Your task to perform on an android device: change alarm snooze length Image 0: 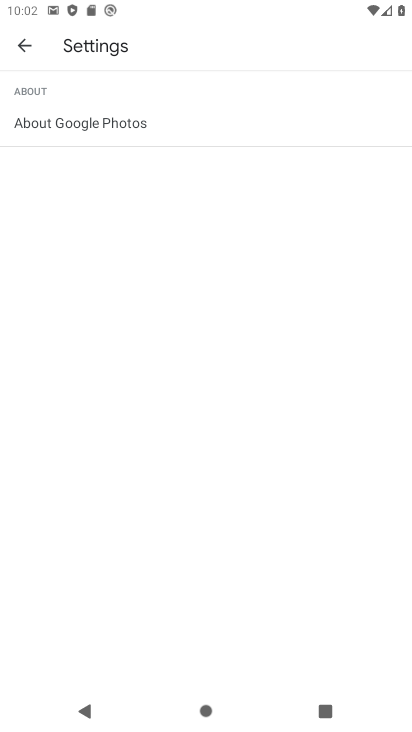
Step 0: press home button
Your task to perform on an android device: change alarm snooze length Image 1: 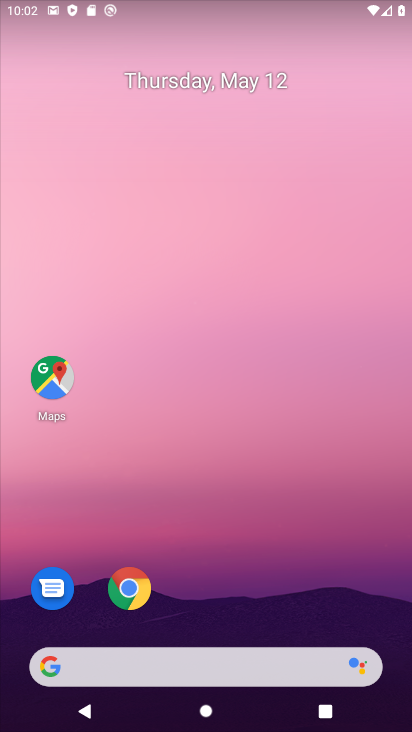
Step 1: drag from (193, 643) to (199, 186)
Your task to perform on an android device: change alarm snooze length Image 2: 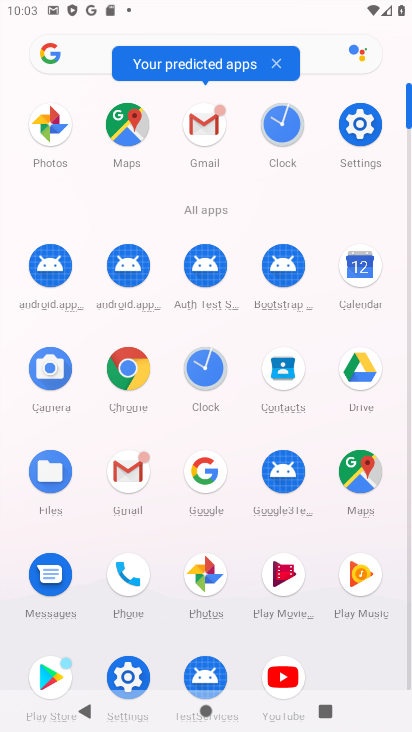
Step 2: click (278, 137)
Your task to perform on an android device: change alarm snooze length Image 3: 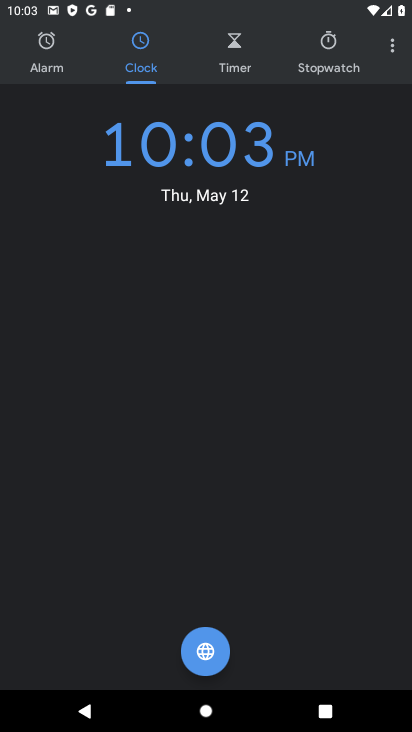
Step 3: click (388, 50)
Your task to perform on an android device: change alarm snooze length Image 4: 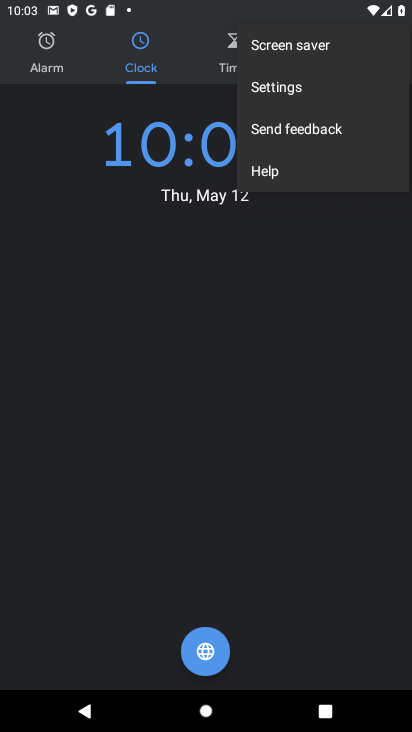
Step 4: click (282, 96)
Your task to perform on an android device: change alarm snooze length Image 5: 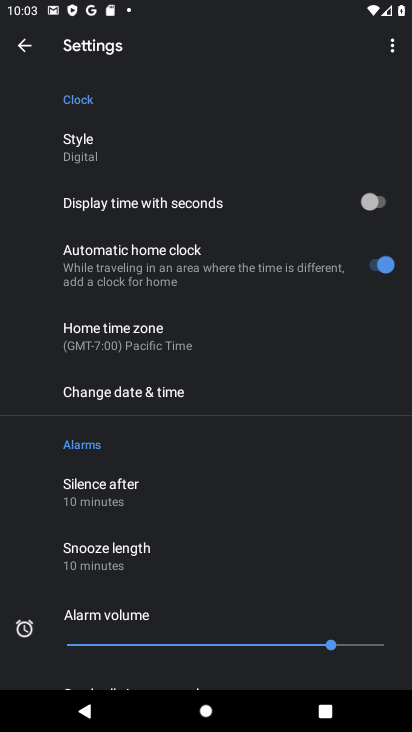
Step 5: click (103, 565)
Your task to perform on an android device: change alarm snooze length Image 6: 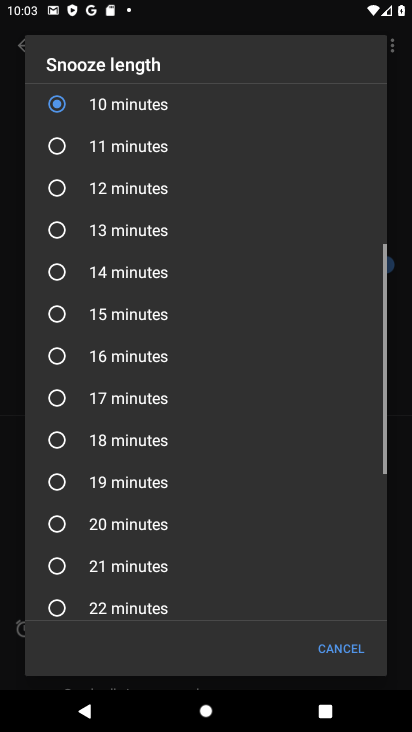
Step 6: click (111, 328)
Your task to perform on an android device: change alarm snooze length Image 7: 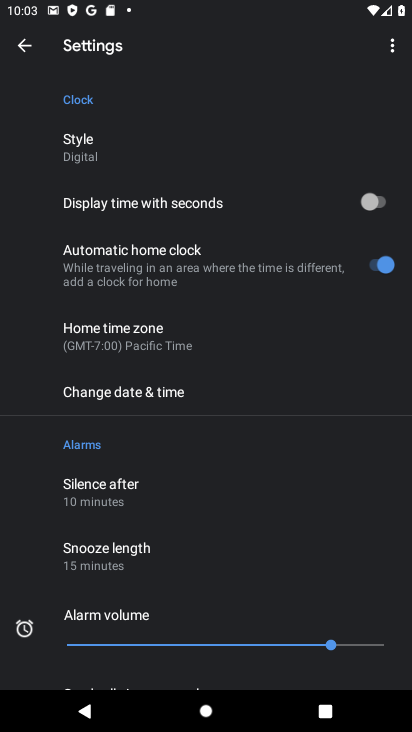
Step 7: task complete